Your task to perform on an android device: toggle sleep mode Image 0: 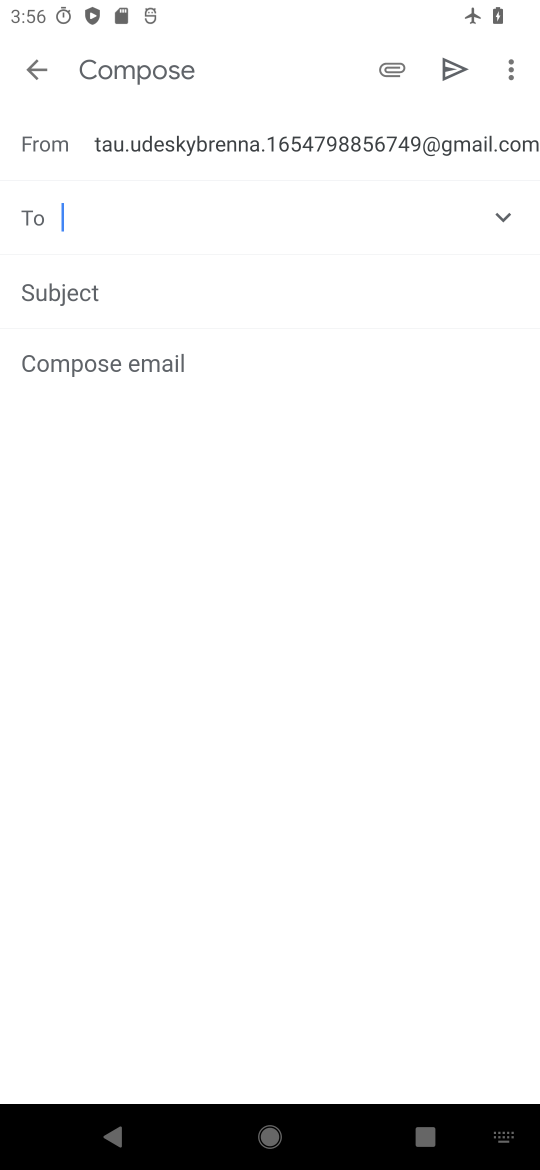
Step 0: press home button
Your task to perform on an android device: toggle sleep mode Image 1: 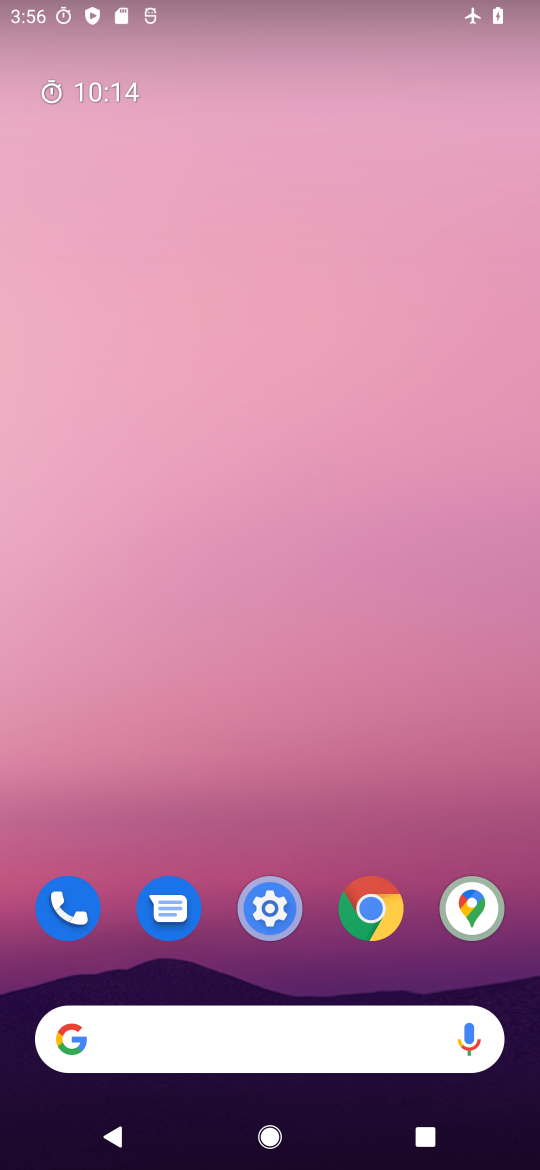
Step 1: drag from (318, 962) to (337, 13)
Your task to perform on an android device: toggle sleep mode Image 2: 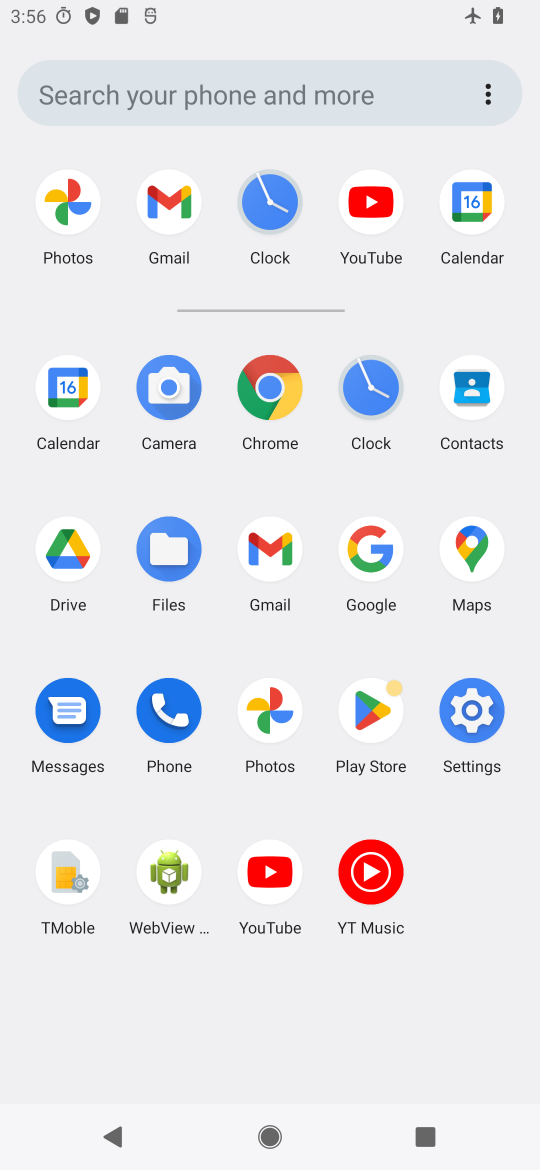
Step 2: click (472, 700)
Your task to perform on an android device: toggle sleep mode Image 3: 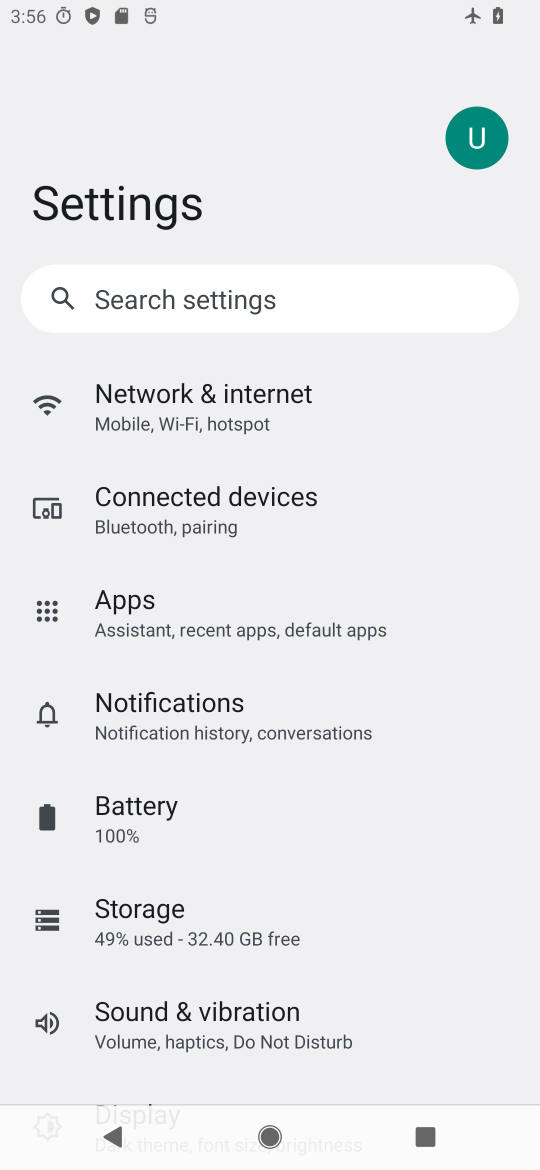
Step 3: drag from (210, 975) to (263, 337)
Your task to perform on an android device: toggle sleep mode Image 4: 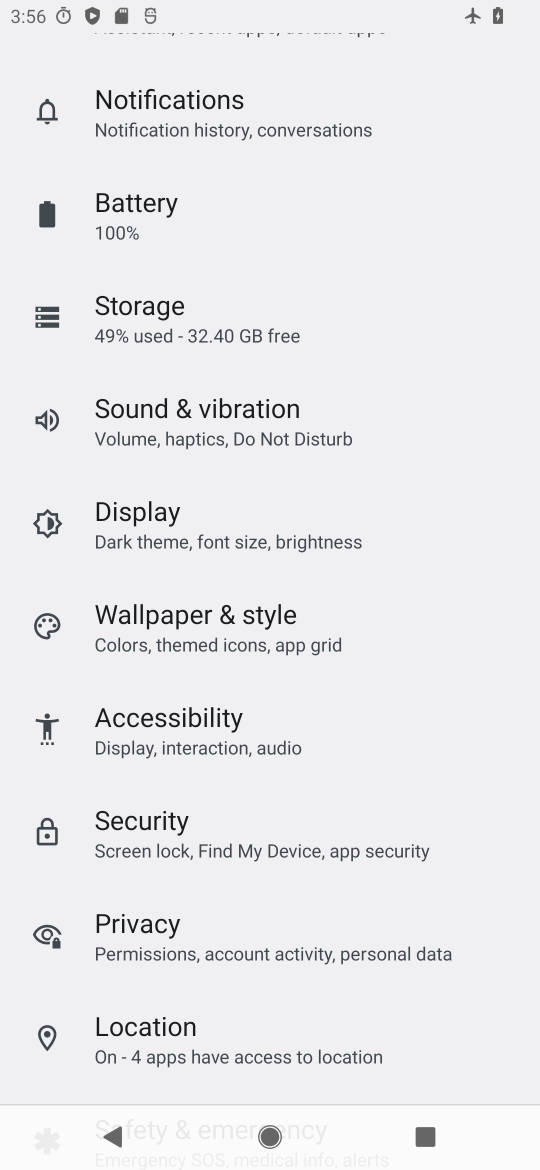
Step 4: click (199, 517)
Your task to perform on an android device: toggle sleep mode Image 5: 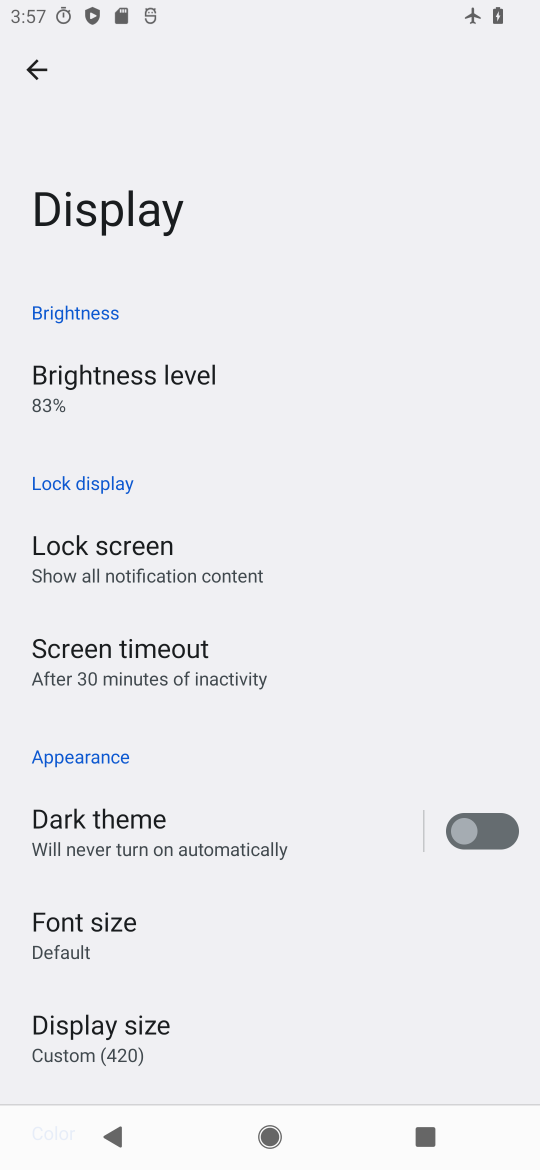
Step 5: task complete